Your task to perform on an android device: open app "Paramount+ | Peak Streaming" Image 0: 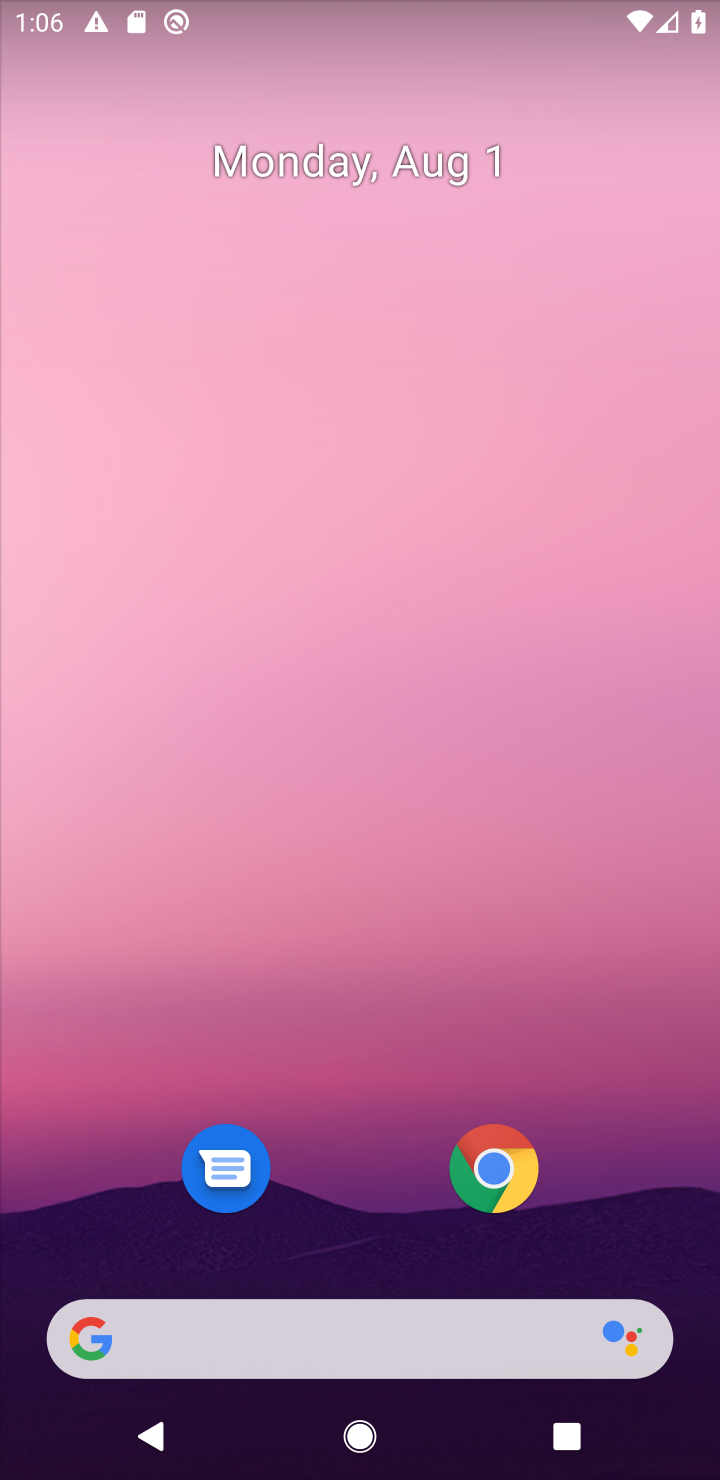
Step 0: drag from (347, 1250) to (320, 405)
Your task to perform on an android device: open app "Paramount+ | Peak Streaming" Image 1: 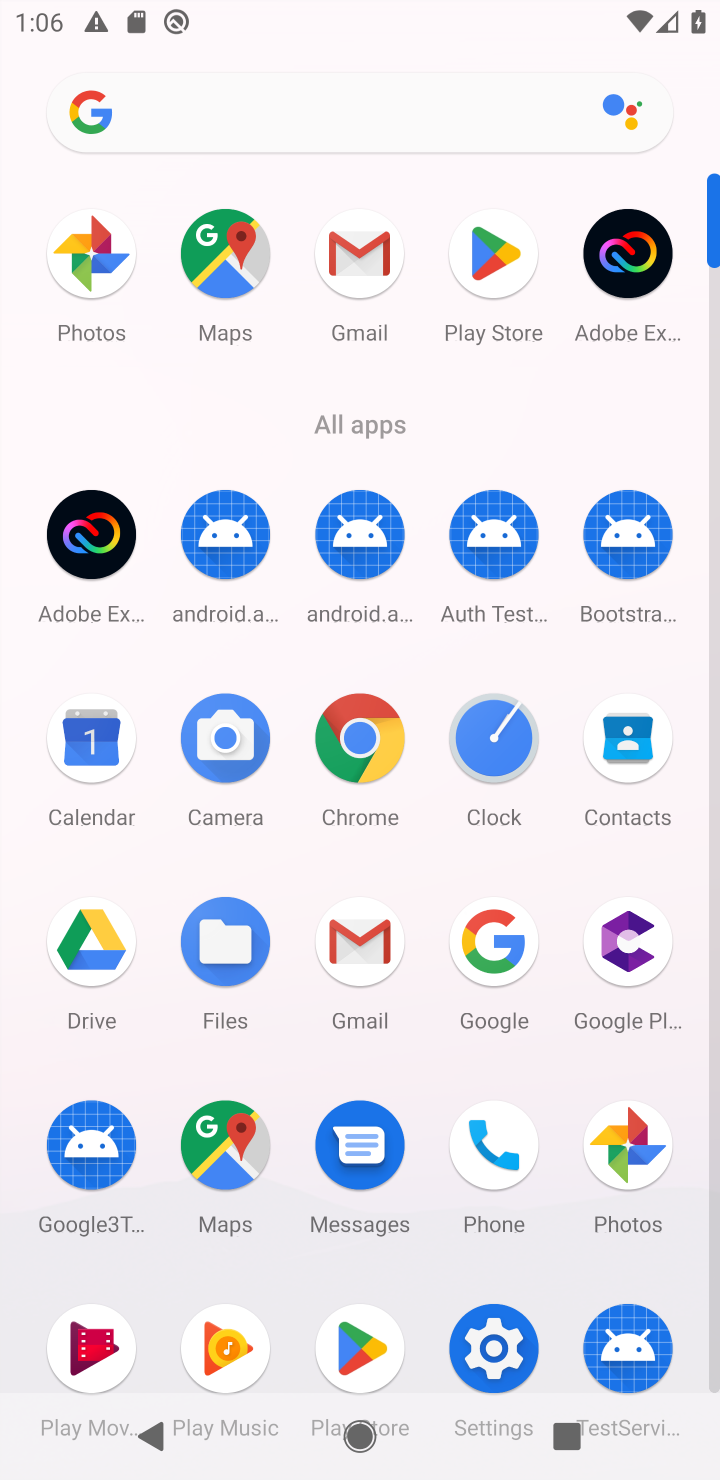
Step 1: click (490, 248)
Your task to perform on an android device: open app "Paramount+ | Peak Streaming" Image 2: 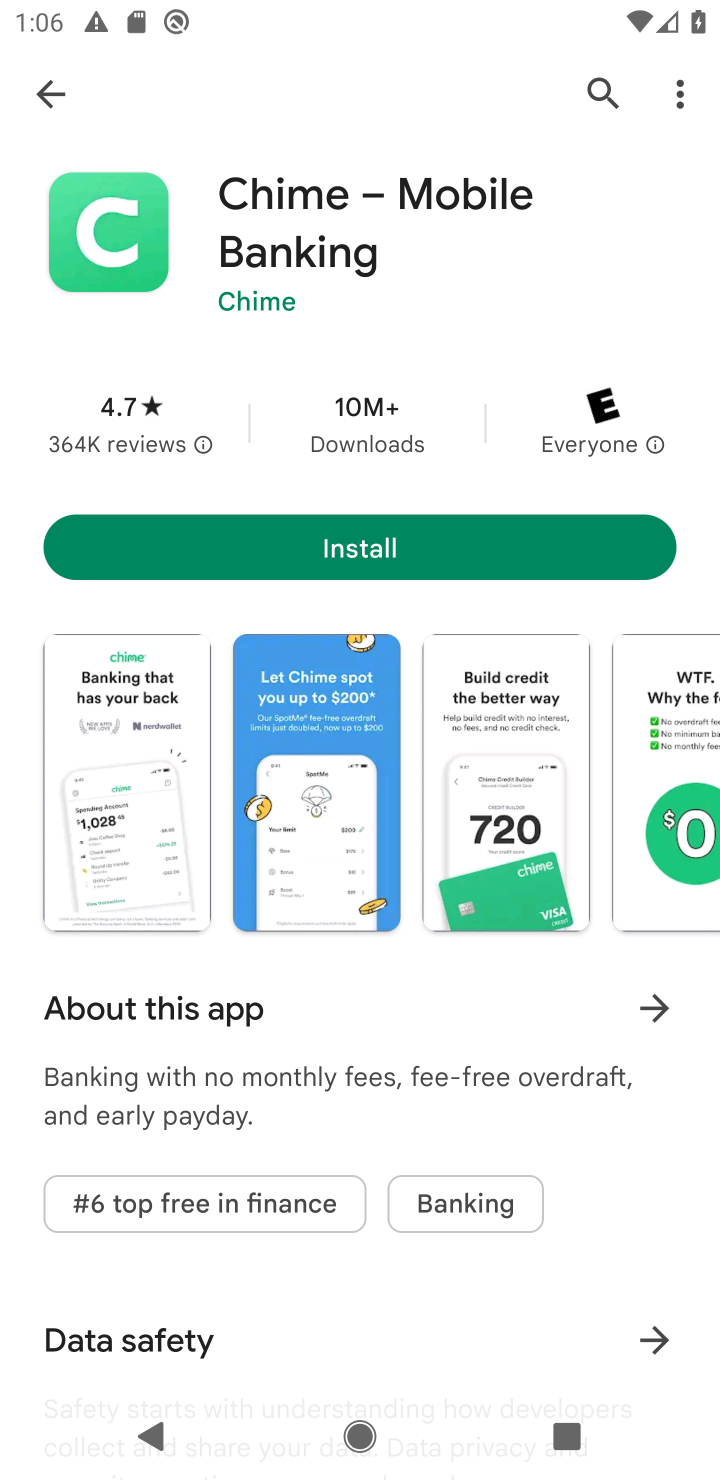
Step 2: click (588, 84)
Your task to perform on an android device: open app "Paramount+ | Peak Streaming" Image 3: 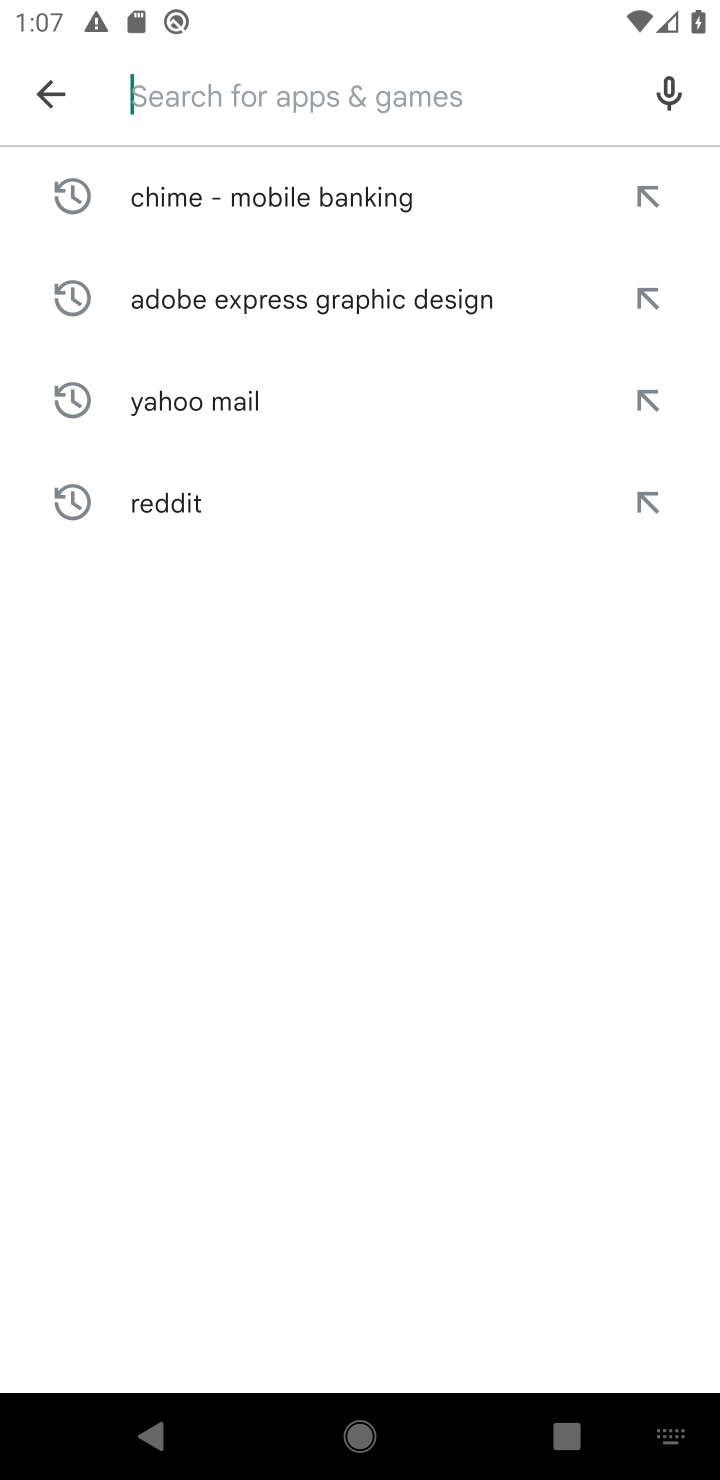
Step 3: type "paramount+ peak streamig"
Your task to perform on an android device: open app "Paramount+ | Peak Streaming" Image 4: 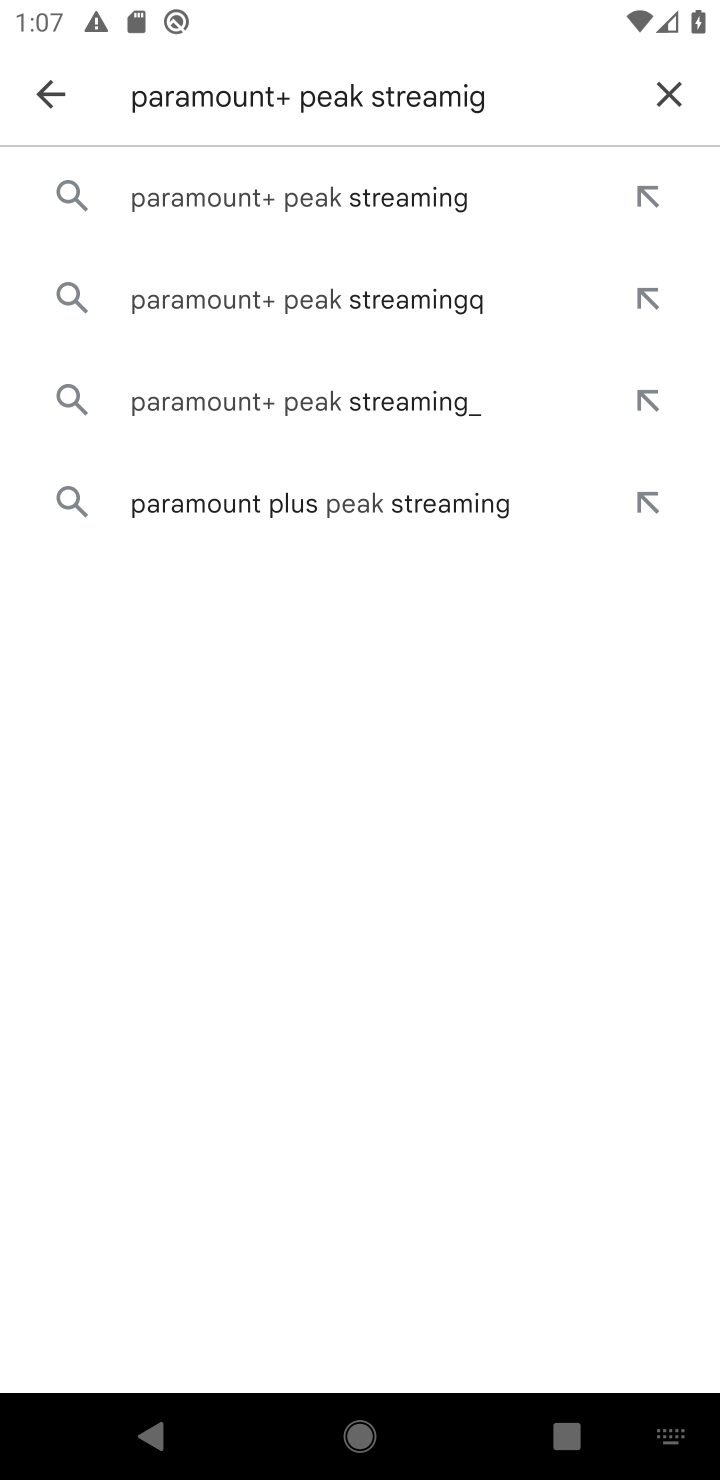
Step 4: click (537, 171)
Your task to perform on an android device: open app "Paramount+ | Peak Streaming" Image 5: 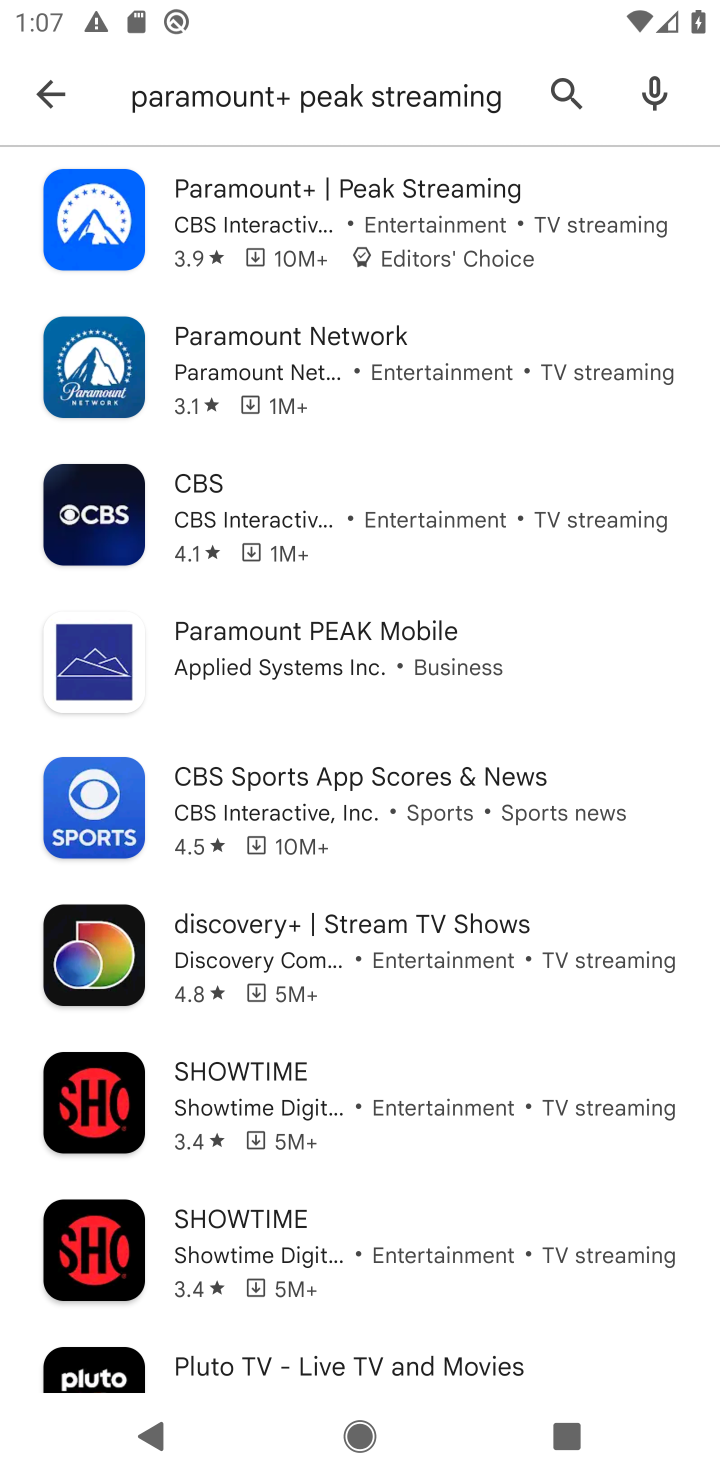
Step 5: click (341, 194)
Your task to perform on an android device: open app "Paramount+ | Peak Streaming" Image 6: 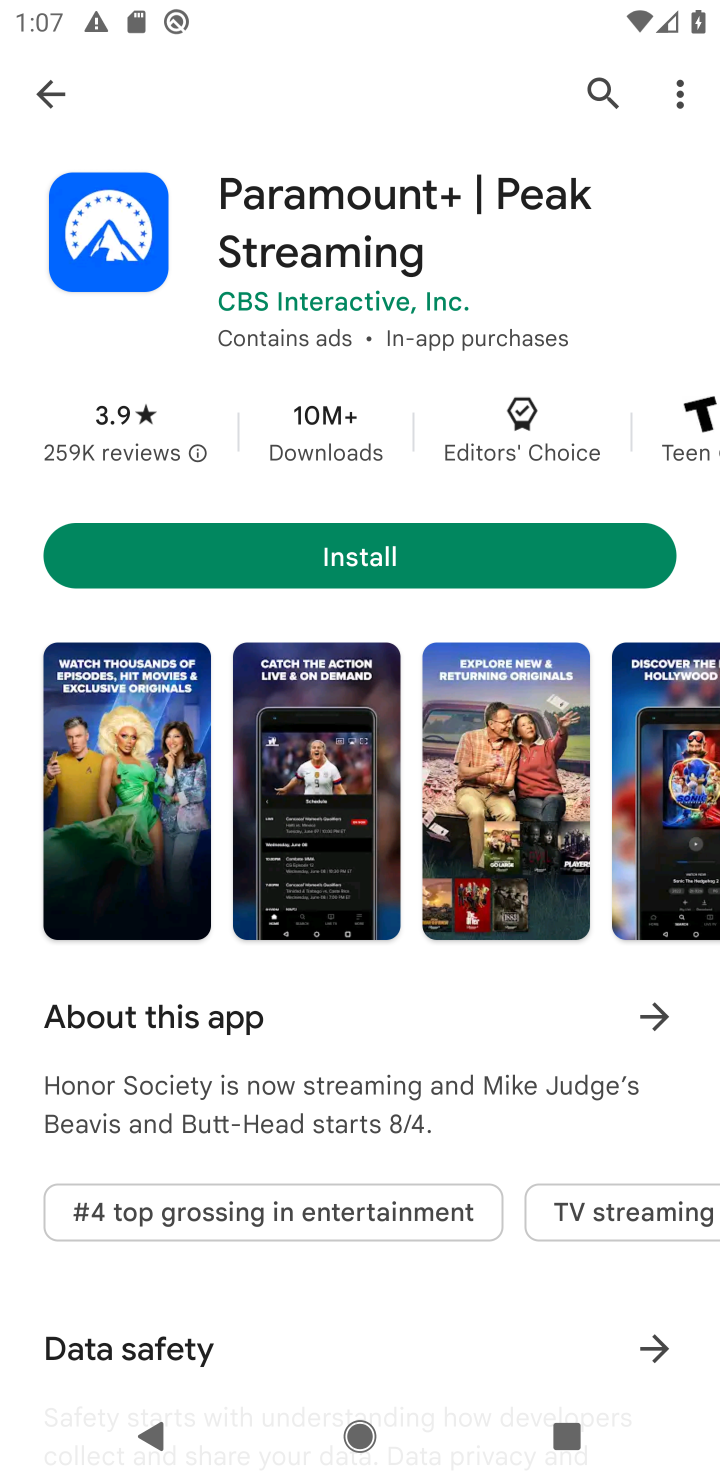
Step 6: task complete